Your task to perform on an android device: Go to internet settings Image 0: 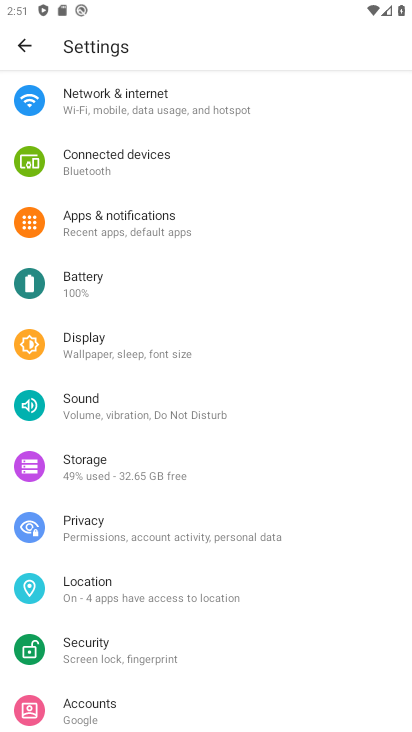
Step 0: click (403, 403)
Your task to perform on an android device: Go to internet settings Image 1: 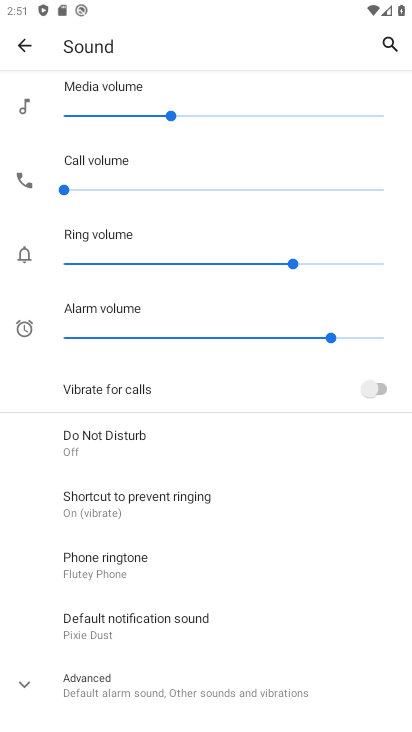
Step 1: click (21, 36)
Your task to perform on an android device: Go to internet settings Image 2: 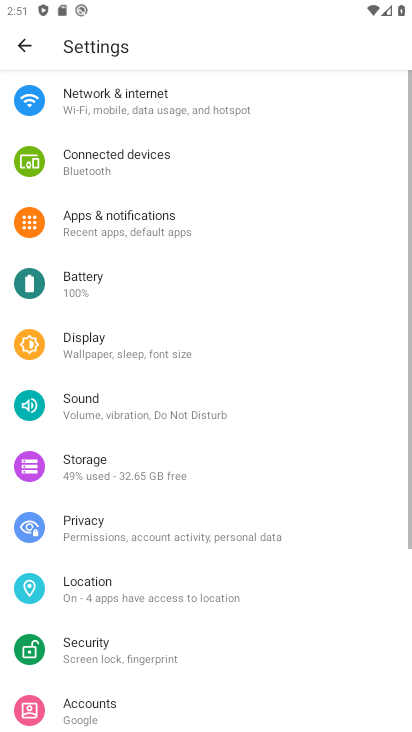
Step 2: click (131, 99)
Your task to perform on an android device: Go to internet settings Image 3: 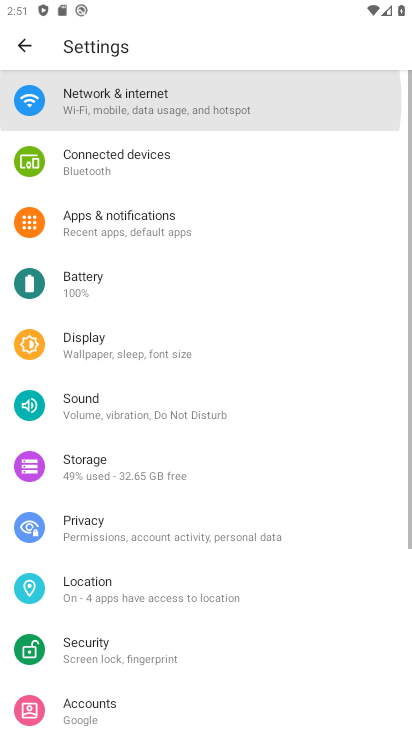
Step 3: click (133, 100)
Your task to perform on an android device: Go to internet settings Image 4: 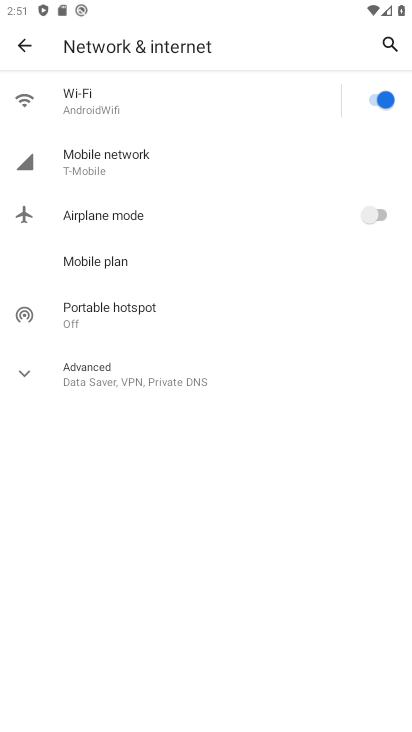
Step 4: task complete